Your task to perform on an android device: toggle location history Image 0: 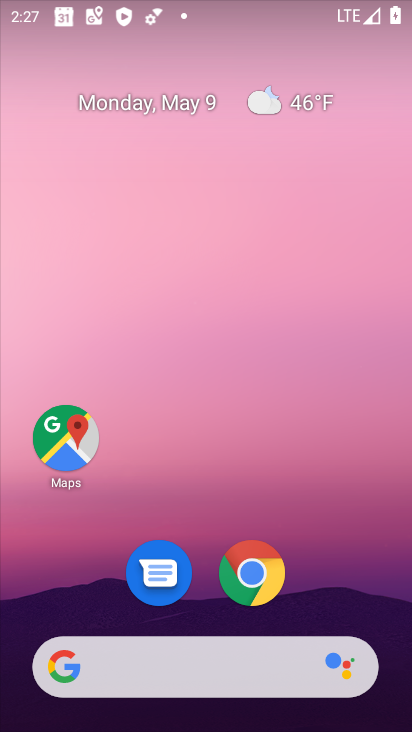
Step 0: drag from (204, 601) to (214, 82)
Your task to perform on an android device: toggle location history Image 1: 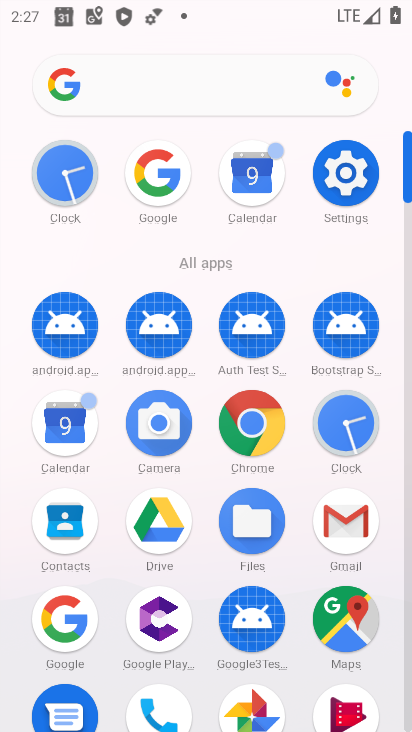
Step 1: click (340, 168)
Your task to perform on an android device: toggle location history Image 2: 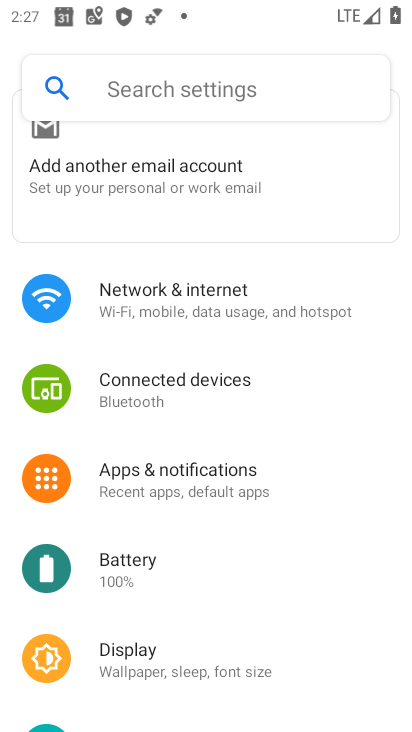
Step 2: drag from (197, 605) to (226, 163)
Your task to perform on an android device: toggle location history Image 3: 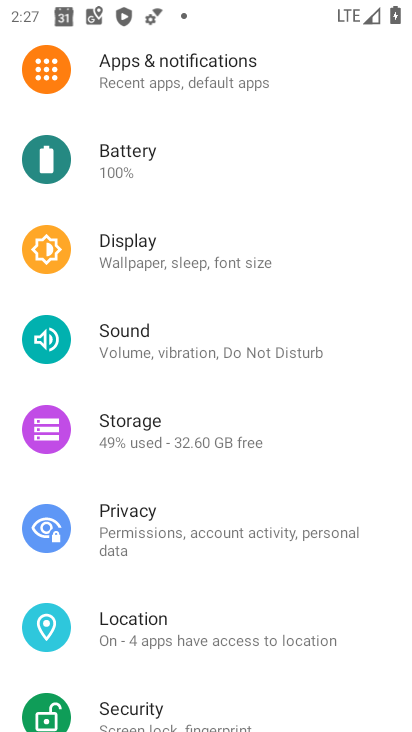
Step 3: click (142, 645)
Your task to perform on an android device: toggle location history Image 4: 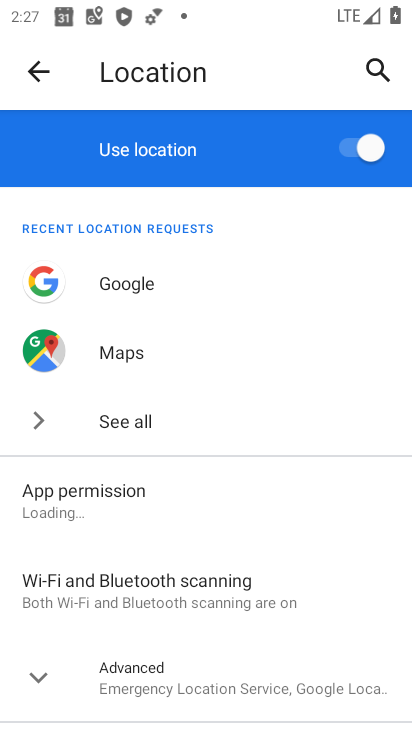
Step 4: drag from (176, 671) to (204, 186)
Your task to perform on an android device: toggle location history Image 5: 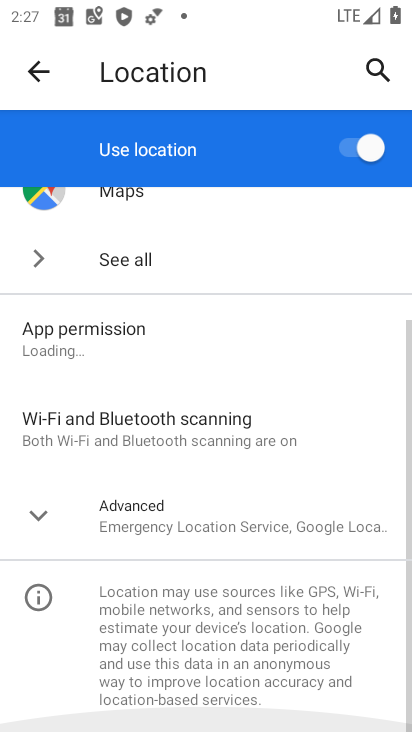
Step 5: click (123, 522)
Your task to perform on an android device: toggle location history Image 6: 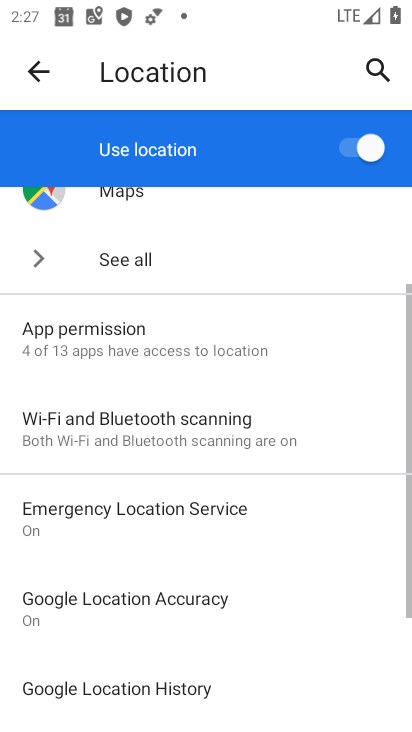
Step 6: drag from (189, 563) to (192, 274)
Your task to perform on an android device: toggle location history Image 7: 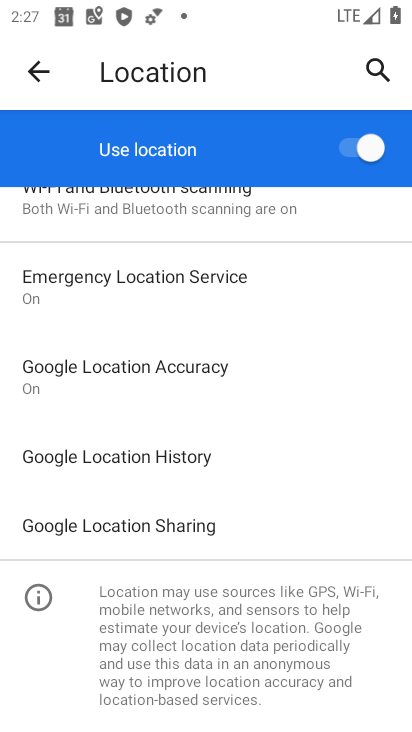
Step 7: click (151, 474)
Your task to perform on an android device: toggle location history Image 8: 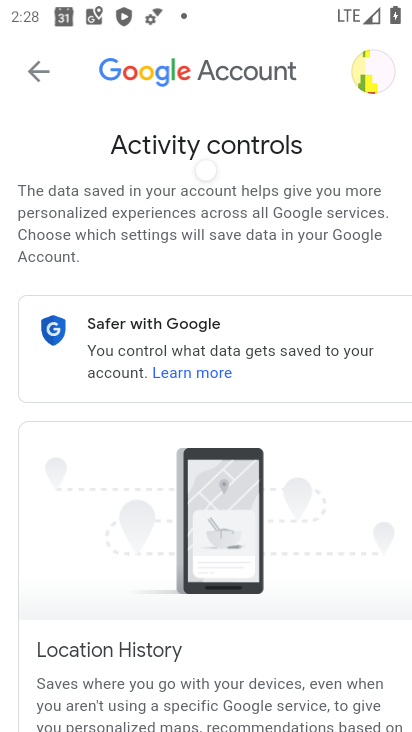
Step 8: drag from (327, 590) to (309, 79)
Your task to perform on an android device: toggle location history Image 9: 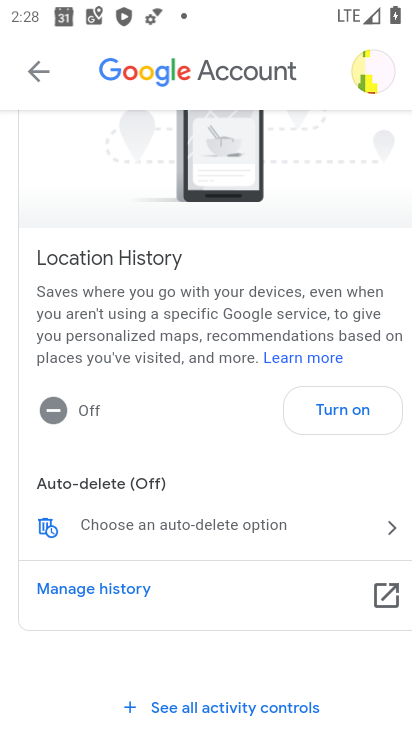
Step 9: click (341, 411)
Your task to perform on an android device: toggle location history Image 10: 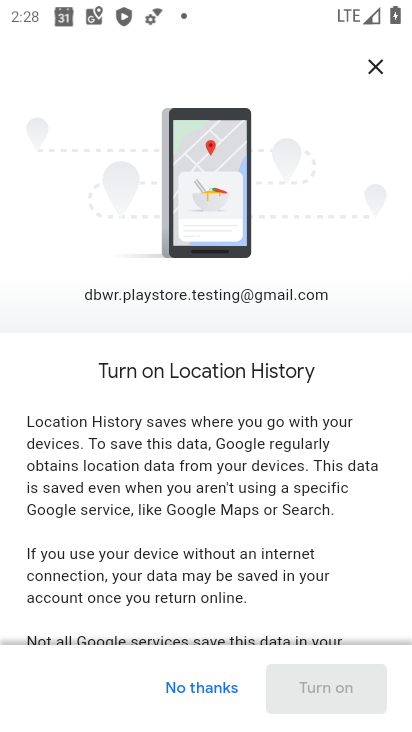
Step 10: drag from (335, 526) to (339, 14)
Your task to perform on an android device: toggle location history Image 11: 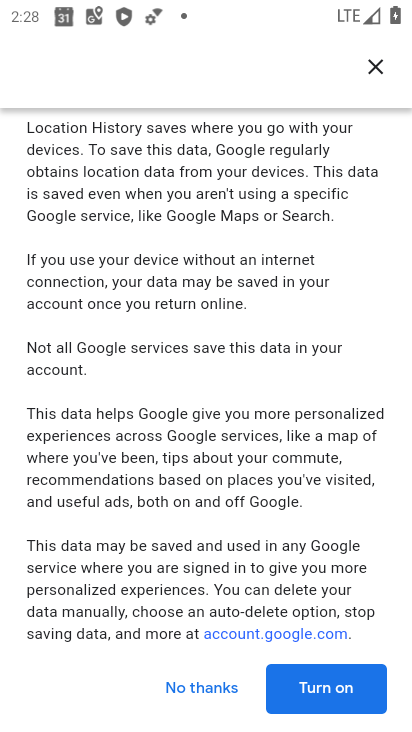
Step 11: click (307, 692)
Your task to perform on an android device: toggle location history Image 12: 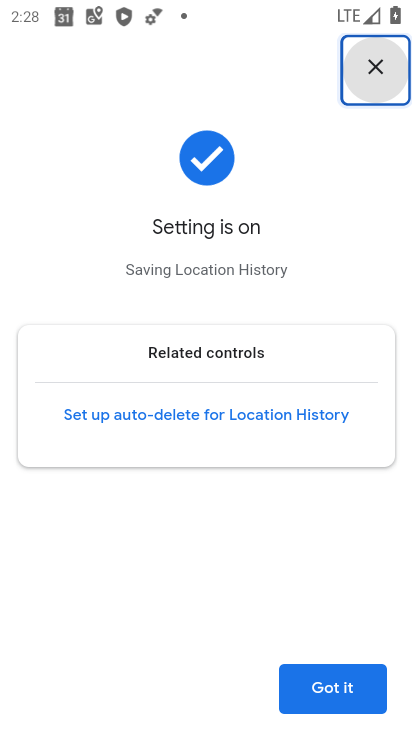
Step 12: click (307, 692)
Your task to perform on an android device: toggle location history Image 13: 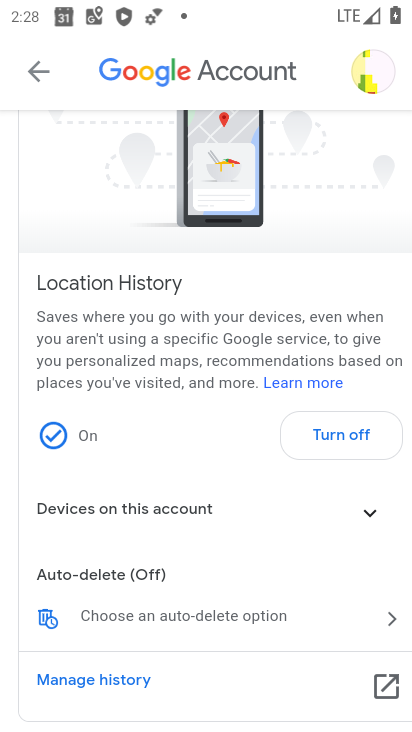
Step 13: task complete